Your task to perform on an android device: set default search engine in the chrome app Image 0: 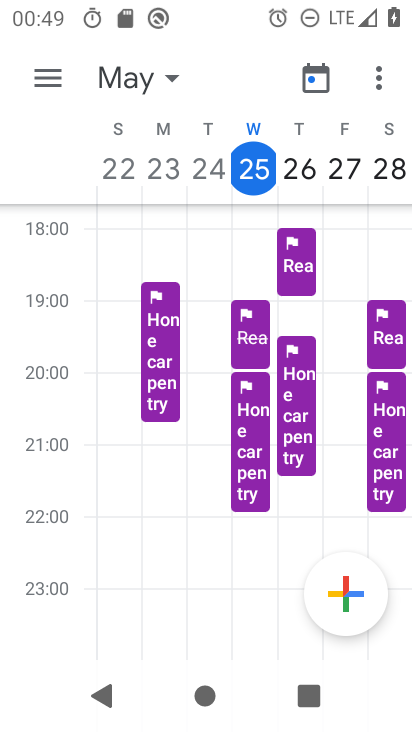
Step 0: press home button
Your task to perform on an android device: set default search engine in the chrome app Image 1: 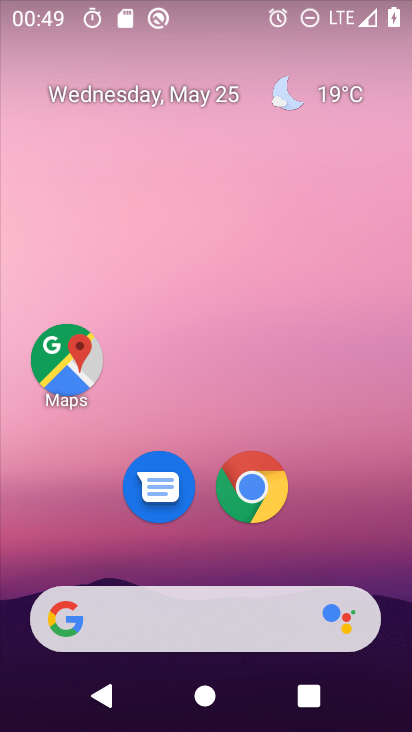
Step 1: click (256, 489)
Your task to perform on an android device: set default search engine in the chrome app Image 2: 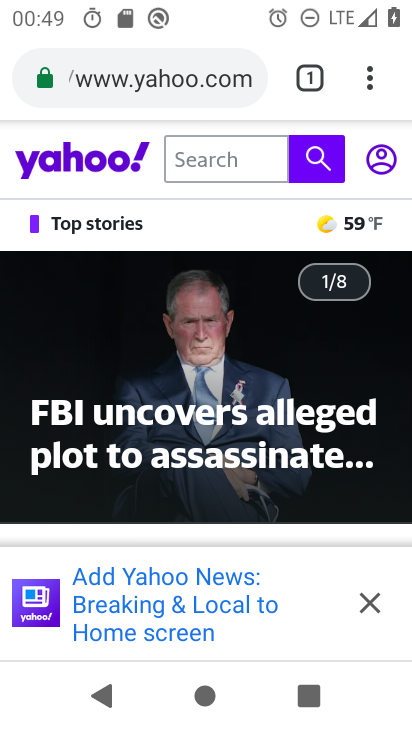
Step 2: click (372, 81)
Your task to perform on an android device: set default search engine in the chrome app Image 3: 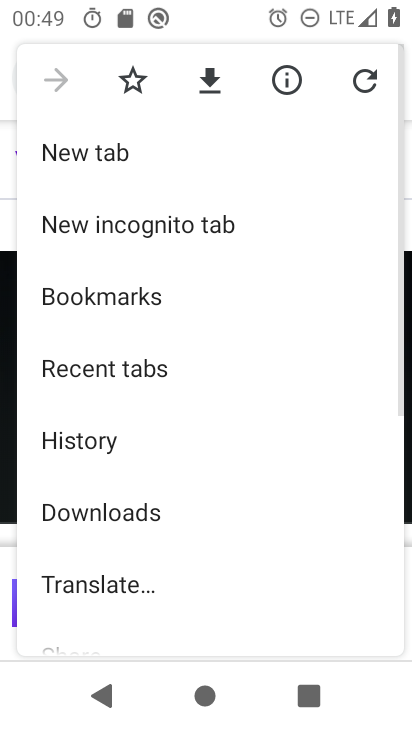
Step 3: drag from (129, 519) to (163, 163)
Your task to perform on an android device: set default search engine in the chrome app Image 4: 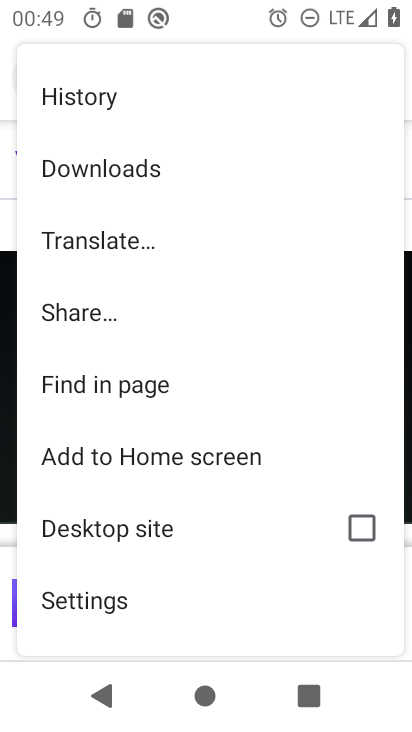
Step 4: drag from (109, 522) to (141, 202)
Your task to perform on an android device: set default search engine in the chrome app Image 5: 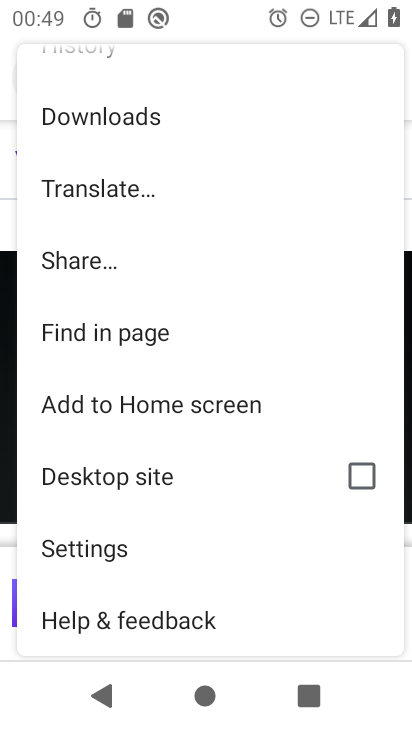
Step 5: click (113, 546)
Your task to perform on an android device: set default search engine in the chrome app Image 6: 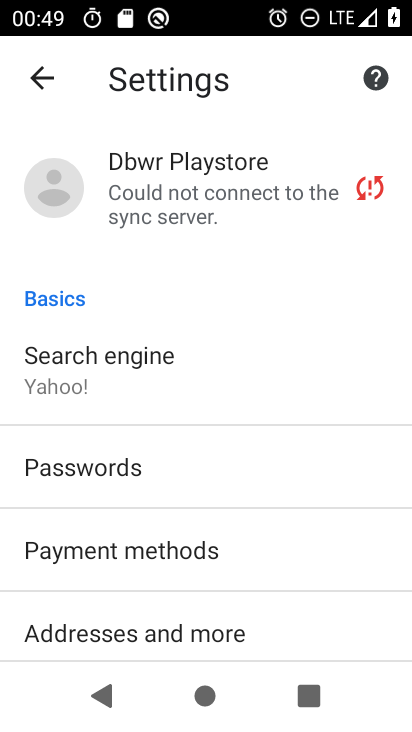
Step 6: click (65, 373)
Your task to perform on an android device: set default search engine in the chrome app Image 7: 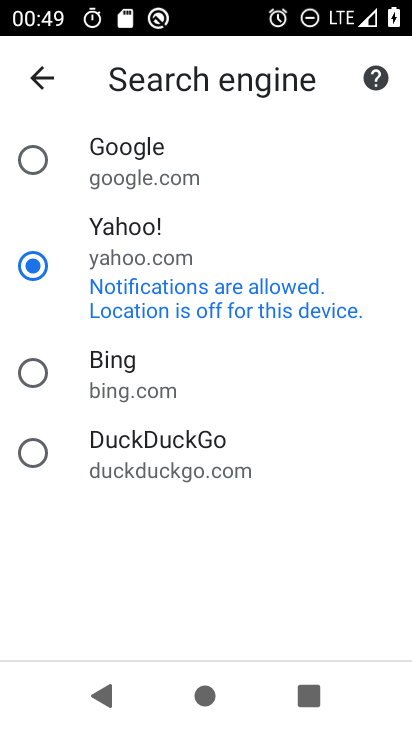
Step 7: click (27, 367)
Your task to perform on an android device: set default search engine in the chrome app Image 8: 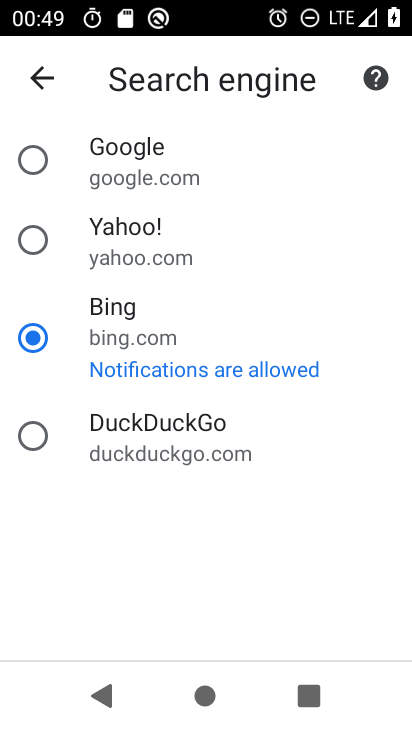
Step 8: task complete